Your task to perform on an android device: change notifications settings Image 0: 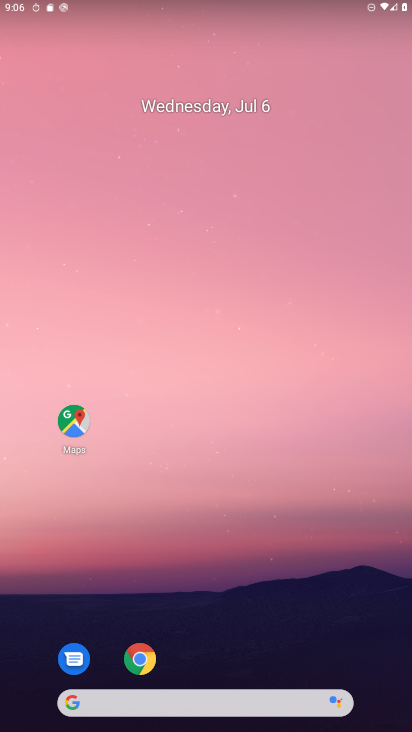
Step 0: drag from (357, 635) to (363, 135)
Your task to perform on an android device: change notifications settings Image 1: 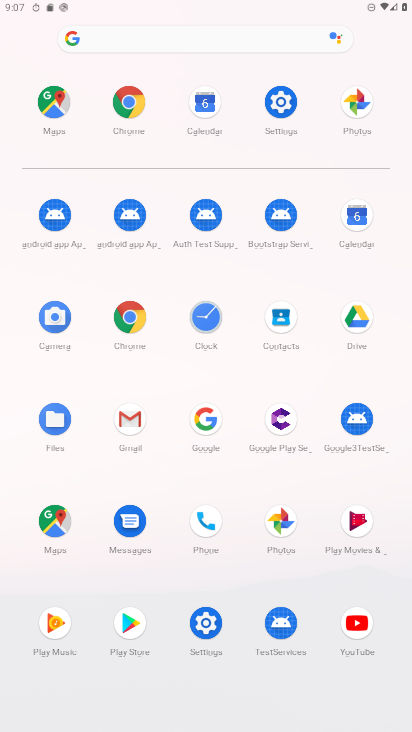
Step 1: click (220, 628)
Your task to perform on an android device: change notifications settings Image 2: 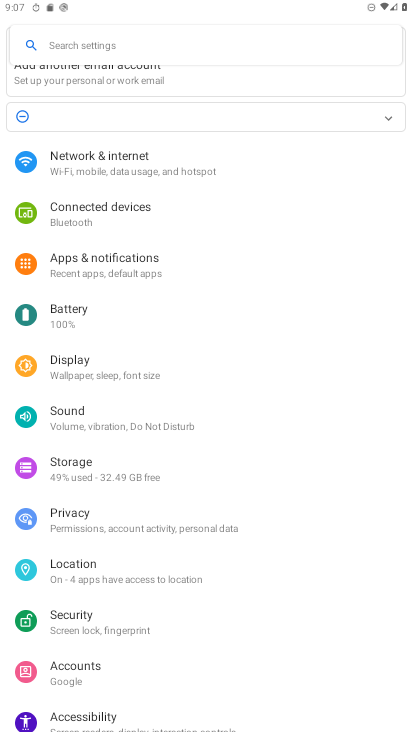
Step 2: click (152, 267)
Your task to perform on an android device: change notifications settings Image 3: 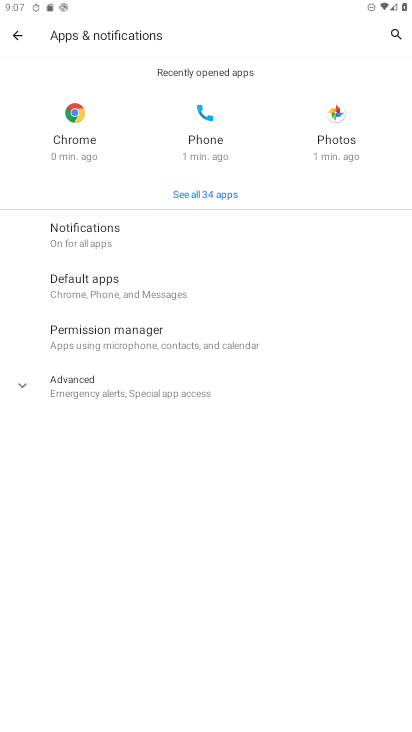
Step 3: click (119, 233)
Your task to perform on an android device: change notifications settings Image 4: 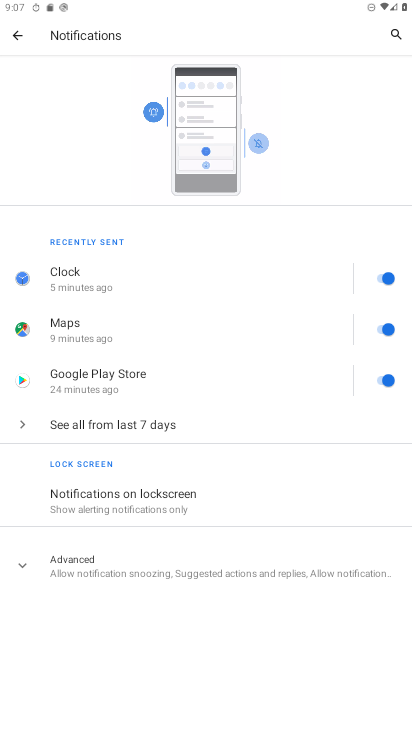
Step 4: click (381, 279)
Your task to perform on an android device: change notifications settings Image 5: 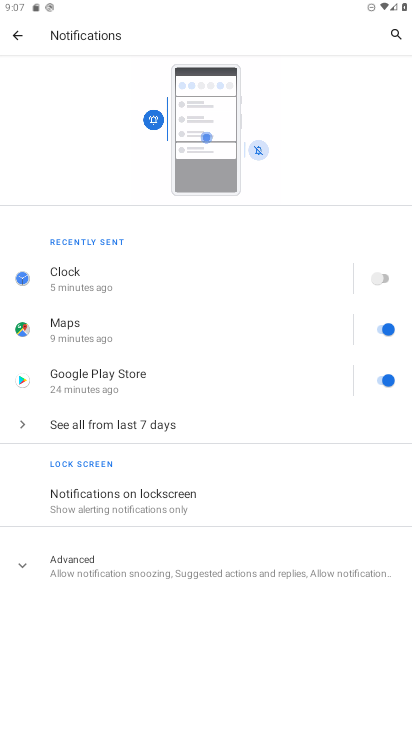
Step 5: click (384, 333)
Your task to perform on an android device: change notifications settings Image 6: 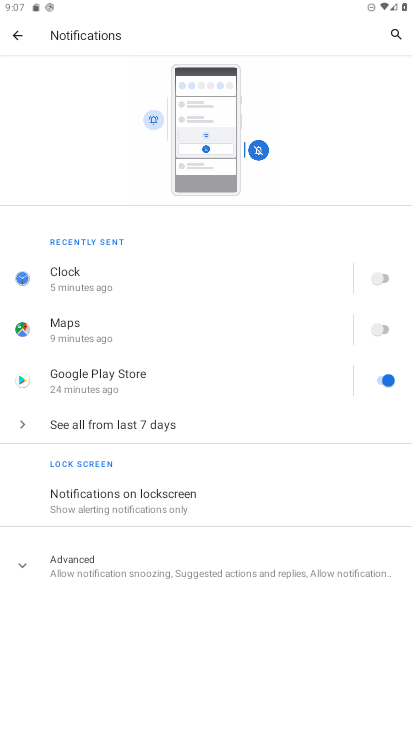
Step 6: click (390, 375)
Your task to perform on an android device: change notifications settings Image 7: 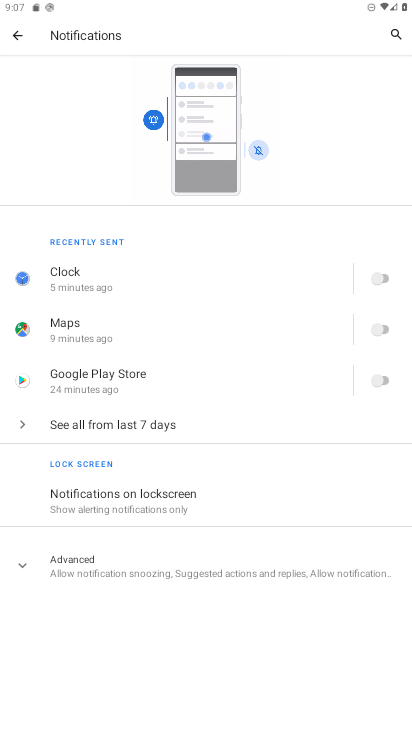
Step 7: task complete